Your task to perform on an android device: turn on wifi Image 0: 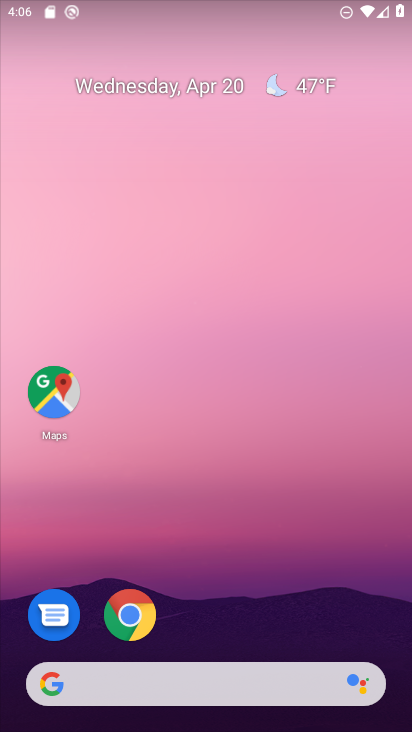
Step 0: drag from (317, 603) to (284, 150)
Your task to perform on an android device: turn on wifi Image 1: 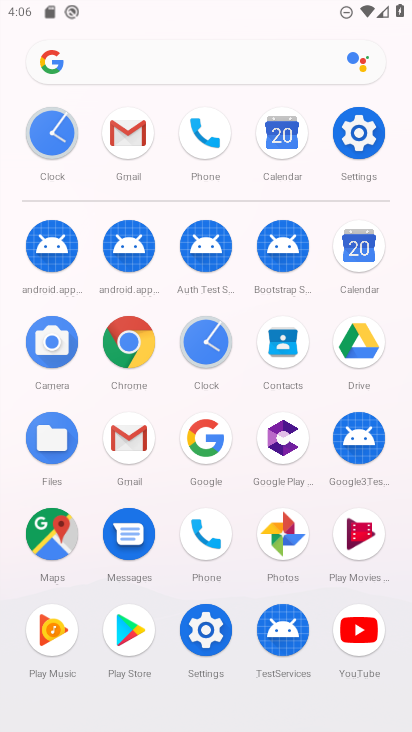
Step 1: click (364, 125)
Your task to perform on an android device: turn on wifi Image 2: 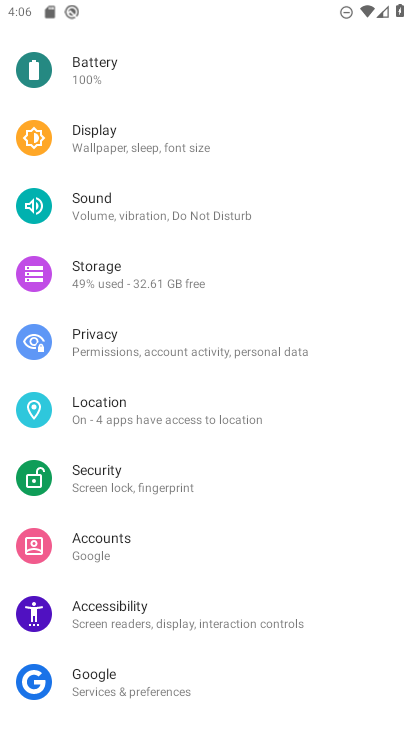
Step 2: drag from (273, 118) to (248, 514)
Your task to perform on an android device: turn on wifi Image 3: 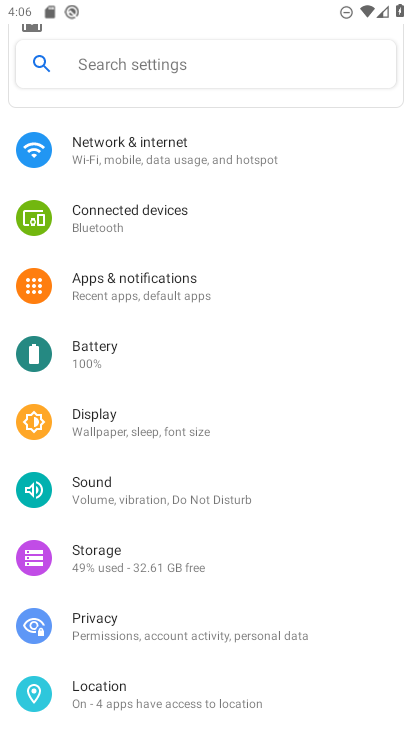
Step 3: click (199, 150)
Your task to perform on an android device: turn on wifi Image 4: 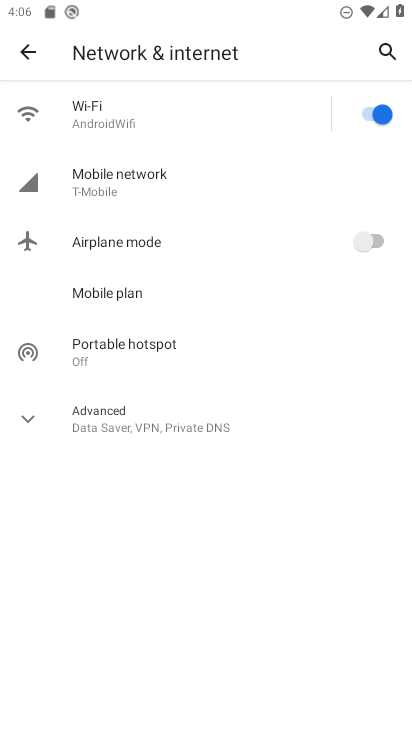
Step 4: task complete